Your task to perform on an android device: change the clock display to digital Image 0: 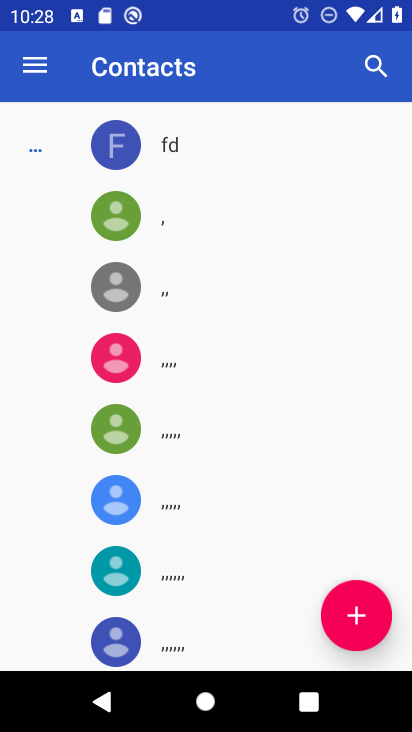
Step 0: press home button
Your task to perform on an android device: change the clock display to digital Image 1: 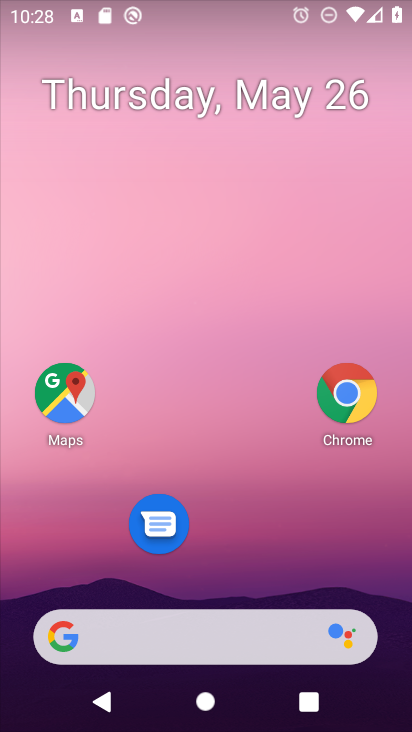
Step 1: drag from (240, 541) to (250, 105)
Your task to perform on an android device: change the clock display to digital Image 2: 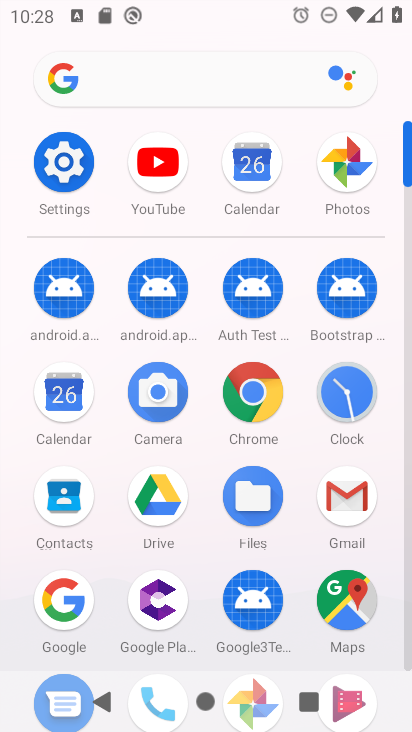
Step 2: click (346, 393)
Your task to perform on an android device: change the clock display to digital Image 3: 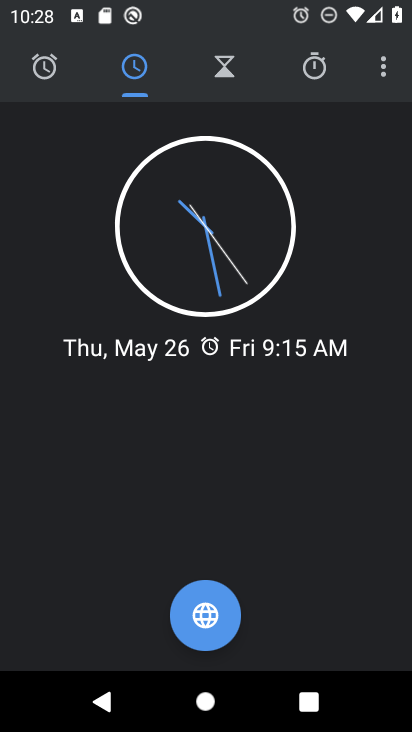
Step 3: click (391, 68)
Your task to perform on an android device: change the clock display to digital Image 4: 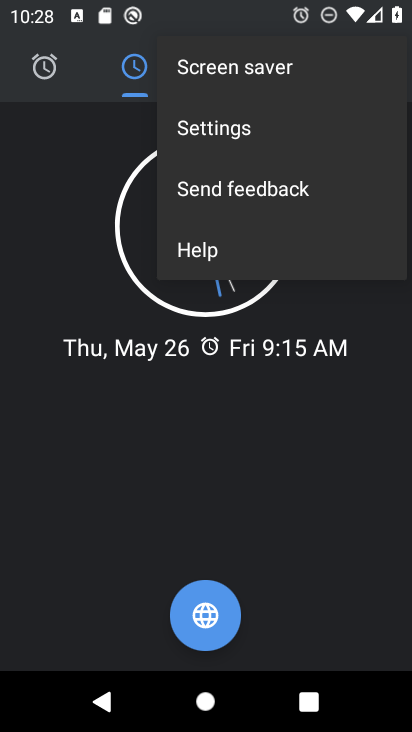
Step 4: click (317, 124)
Your task to perform on an android device: change the clock display to digital Image 5: 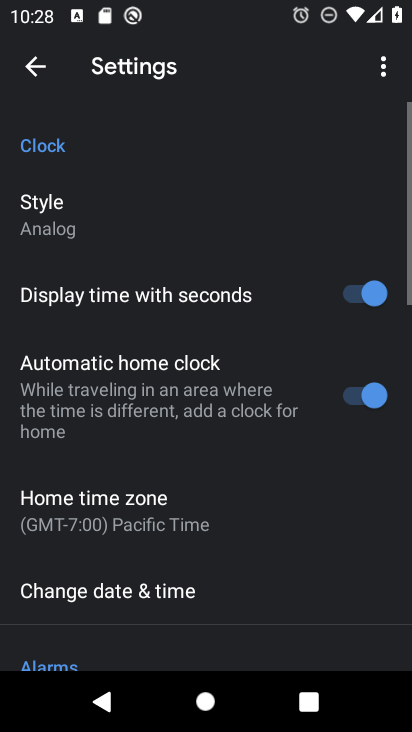
Step 5: click (158, 223)
Your task to perform on an android device: change the clock display to digital Image 6: 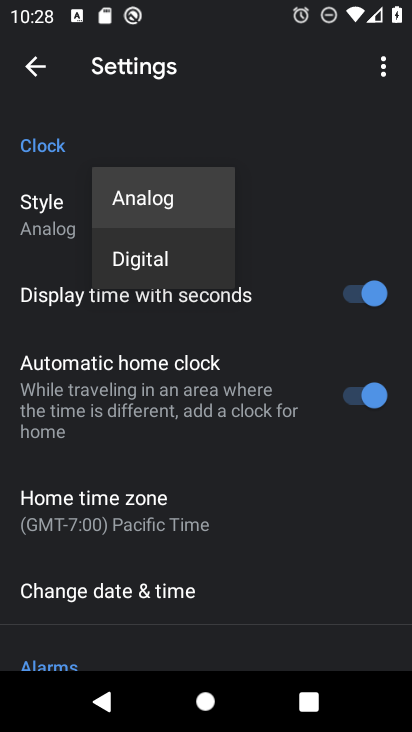
Step 6: click (146, 255)
Your task to perform on an android device: change the clock display to digital Image 7: 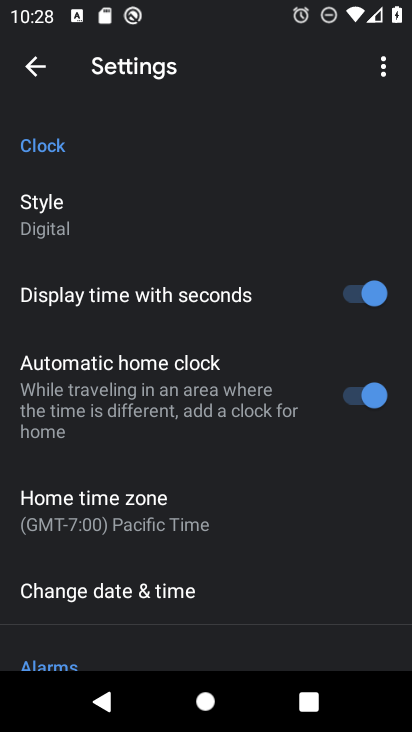
Step 7: task complete